Your task to perform on an android device: turn on javascript in the chrome app Image 0: 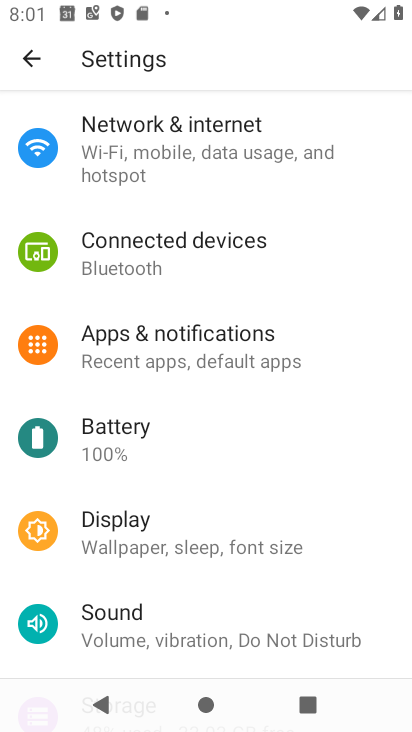
Step 0: press home button
Your task to perform on an android device: turn on javascript in the chrome app Image 1: 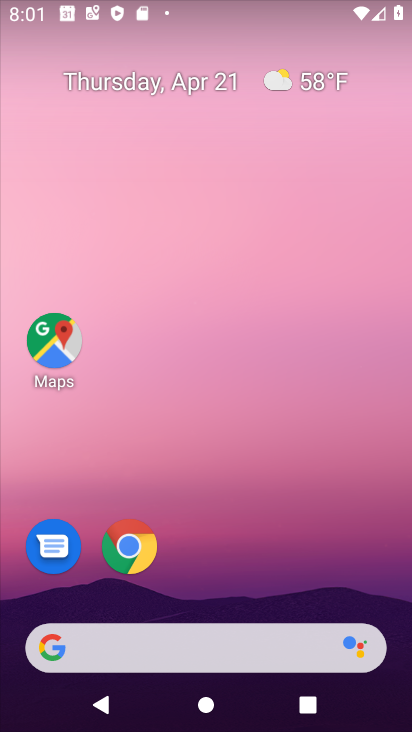
Step 1: drag from (290, 520) to (219, 23)
Your task to perform on an android device: turn on javascript in the chrome app Image 2: 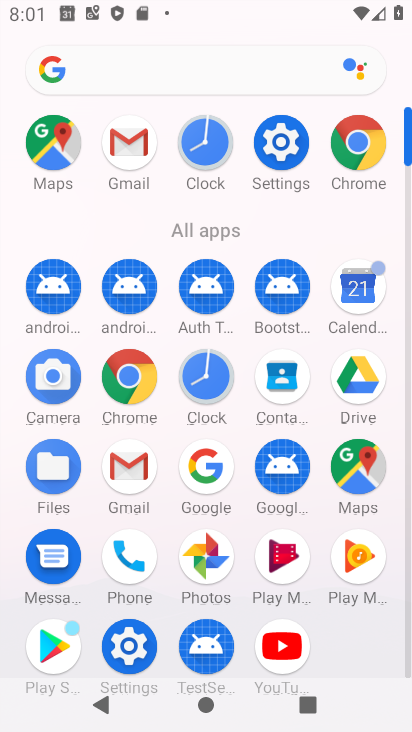
Step 2: click (344, 143)
Your task to perform on an android device: turn on javascript in the chrome app Image 3: 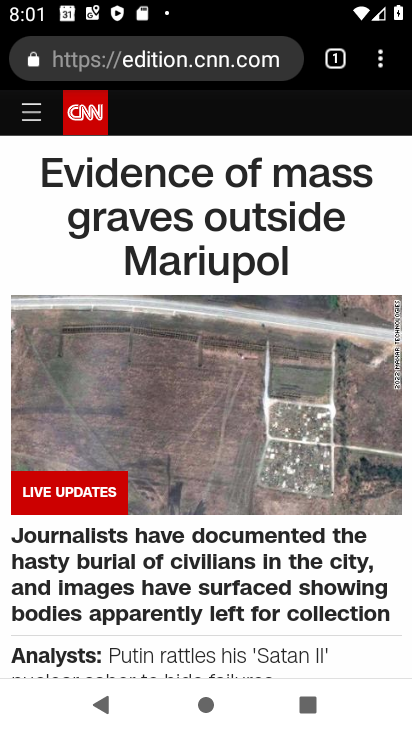
Step 3: drag from (381, 63) to (154, 570)
Your task to perform on an android device: turn on javascript in the chrome app Image 4: 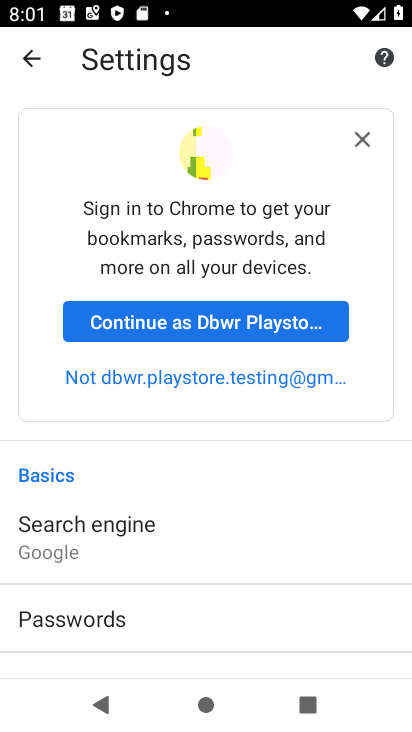
Step 4: drag from (188, 558) to (244, 170)
Your task to perform on an android device: turn on javascript in the chrome app Image 5: 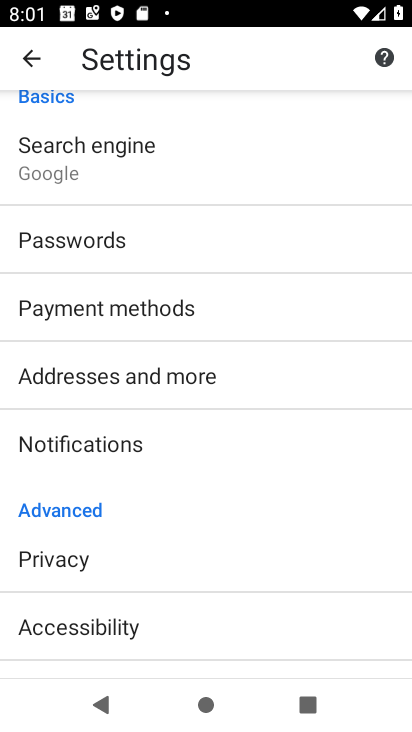
Step 5: drag from (180, 579) to (177, 198)
Your task to perform on an android device: turn on javascript in the chrome app Image 6: 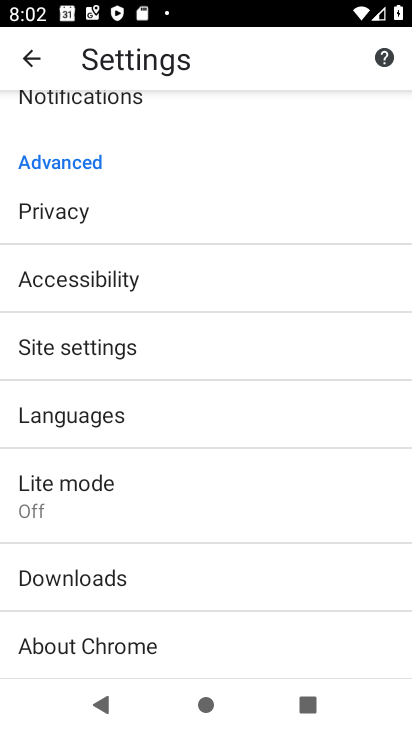
Step 6: drag from (155, 594) to (161, 338)
Your task to perform on an android device: turn on javascript in the chrome app Image 7: 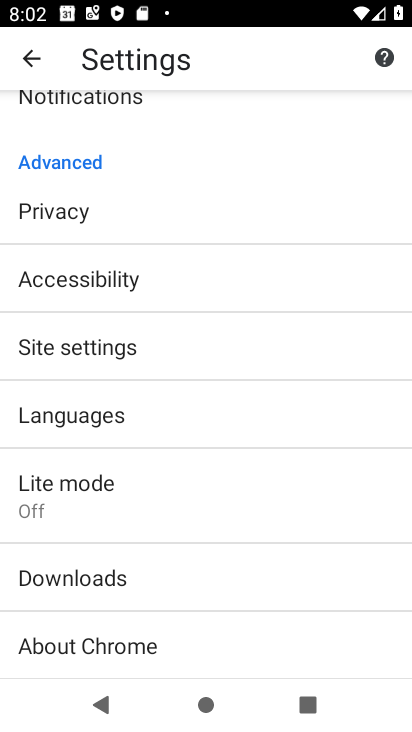
Step 7: drag from (201, 489) to (144, 129)
Your task to perform on an android device: turn on javascript in the chrome app Image 8: 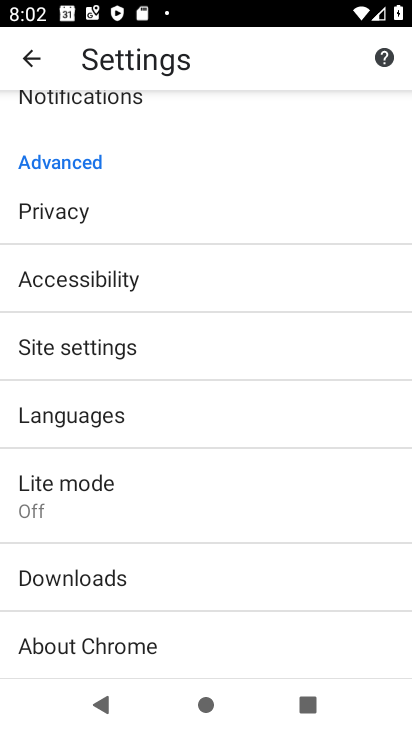
Step 8: click (61, 345)
Your task to perform on an android device: turn on javascript in the chrome app Image 9: 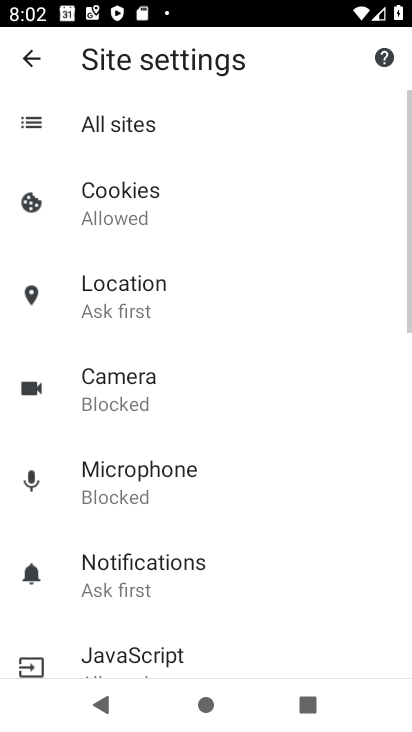
Step 9: drag from (185, 543) to (237, 212)
Your task to perform on an android device: turn on javascript in the chrome app Image 10: 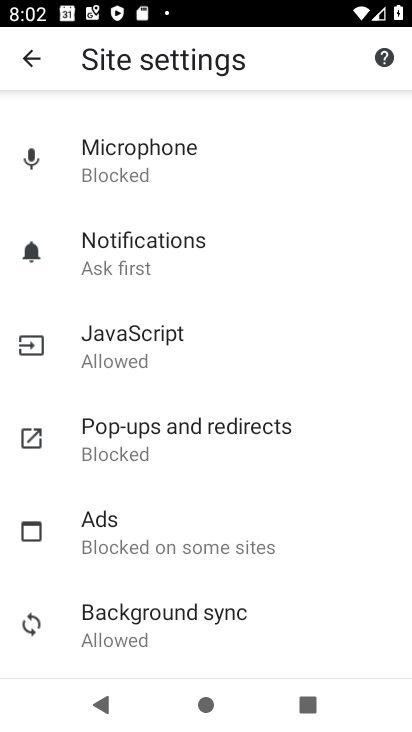
Step 10: click (152, 351)
Your task to perform on an android device: turn on javascript in the chrome app Image 11: 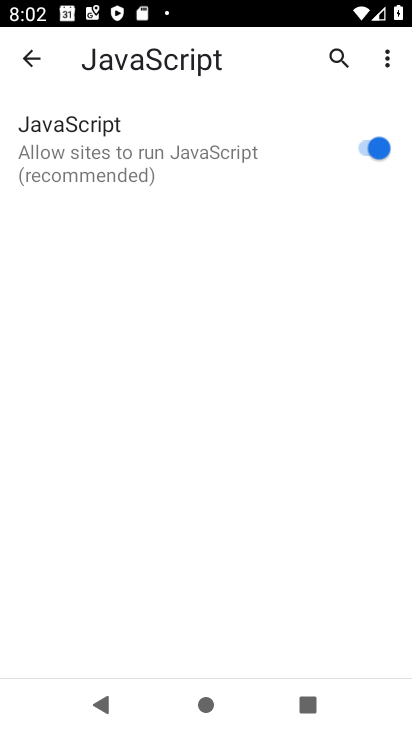
Step 11: click (368, 141)
Your task to perform on an android device: turn on javascript in the chrome app Image 12: 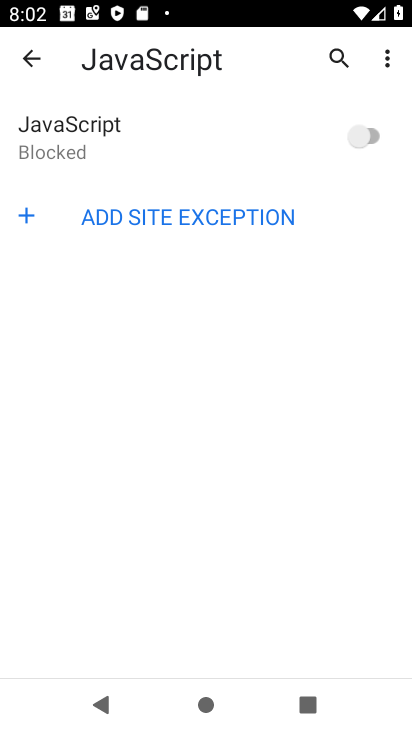
Step 12: click (348, 141)
Your task to perform on an android device: turn on javascript in the chrome app Image 13: 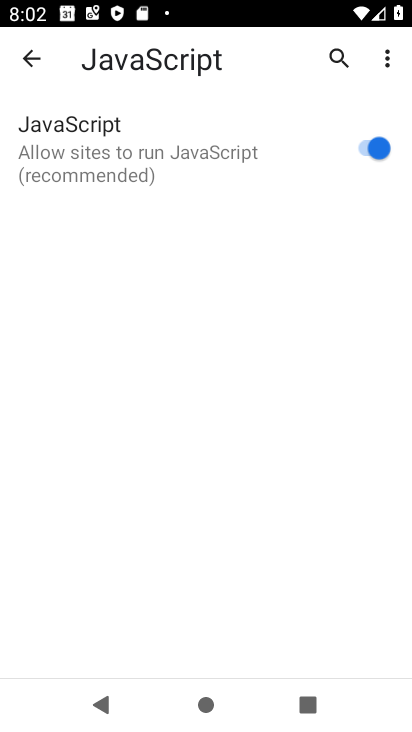
Step 13: task complete